Your task to perform on an android device: Search for bose soundlink on ebay, select the first entry, and add it to the cart. Image 0: 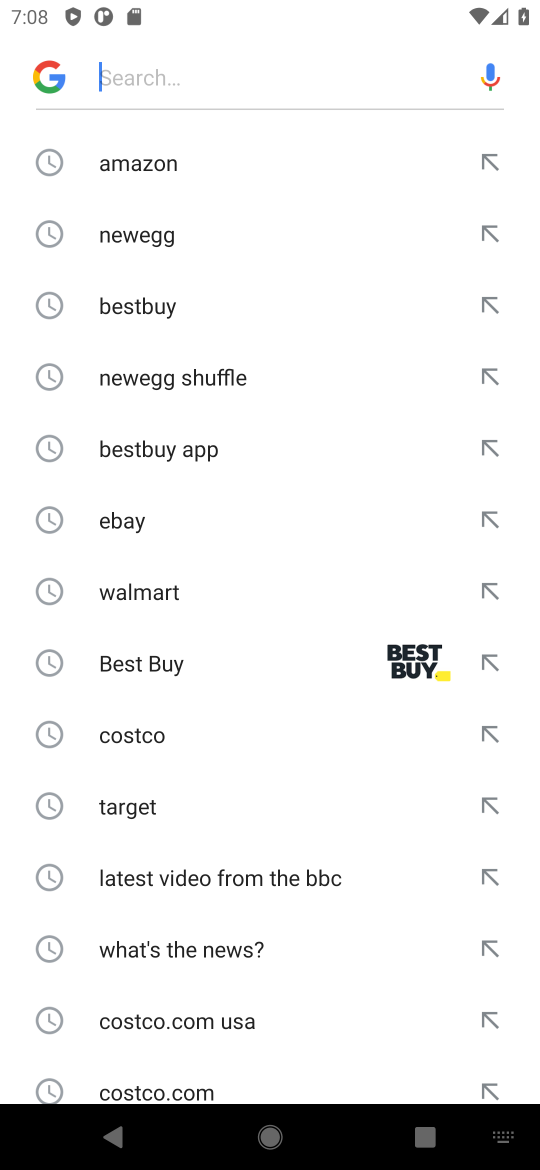
Step 0: type "ebay"
Your task to perform on an android device: Search for bose soundlink on ebay, select the first entry, and add it to the cart. Image 1: 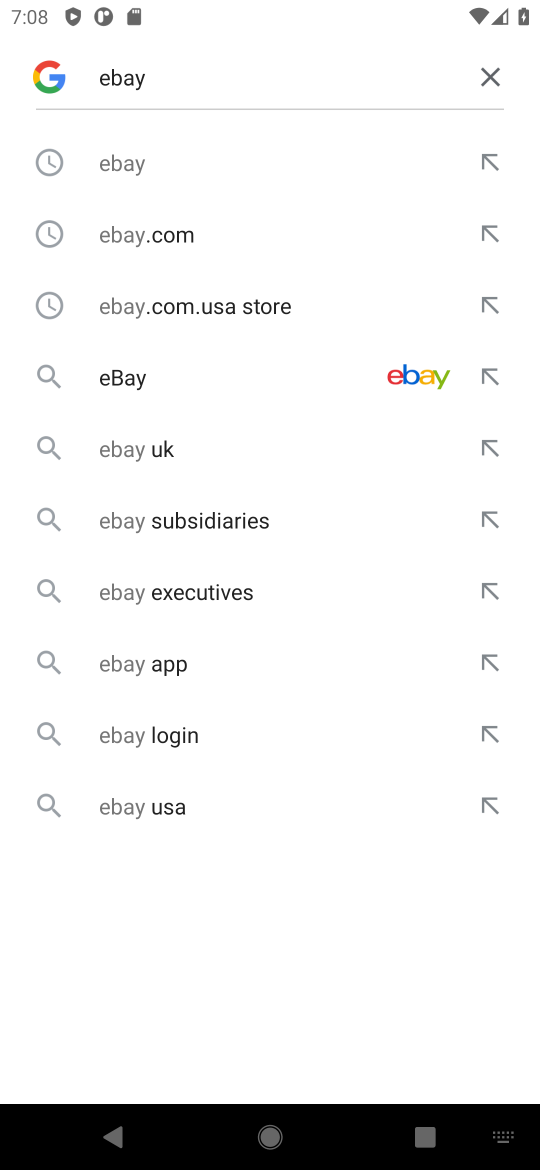
Step 1: click (319, 372)
Your task to perform on an android device: Search for bose soundlink on ebay, select the first entry, and add it to the cart. Image 2: 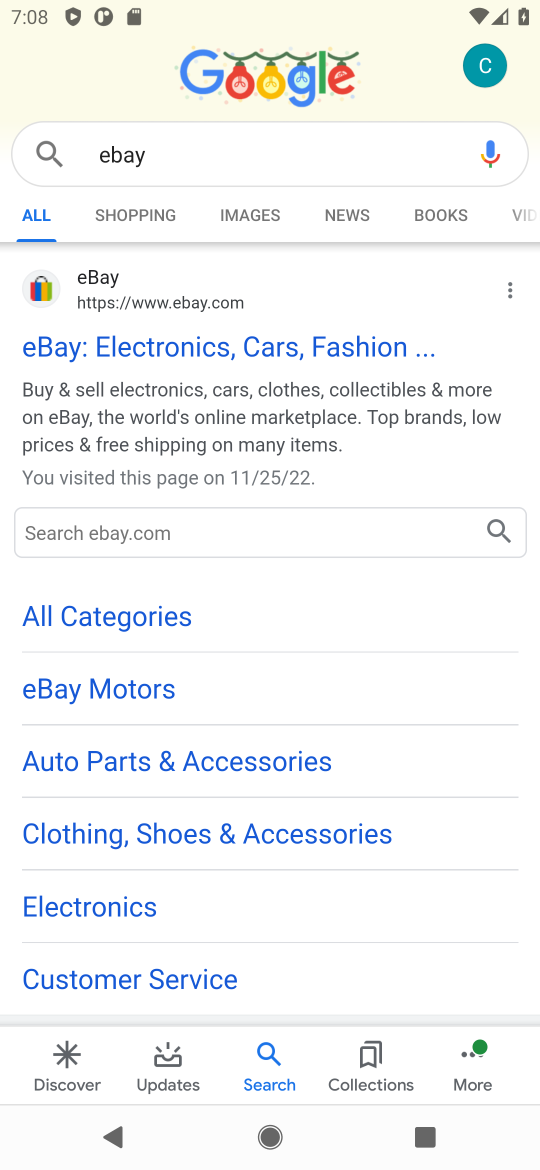
Step 2: click (298, 367)
Your task to perform on an android device: Search for bose soundlink on ebay, select the first entry, and add it to the cart. Image 3: 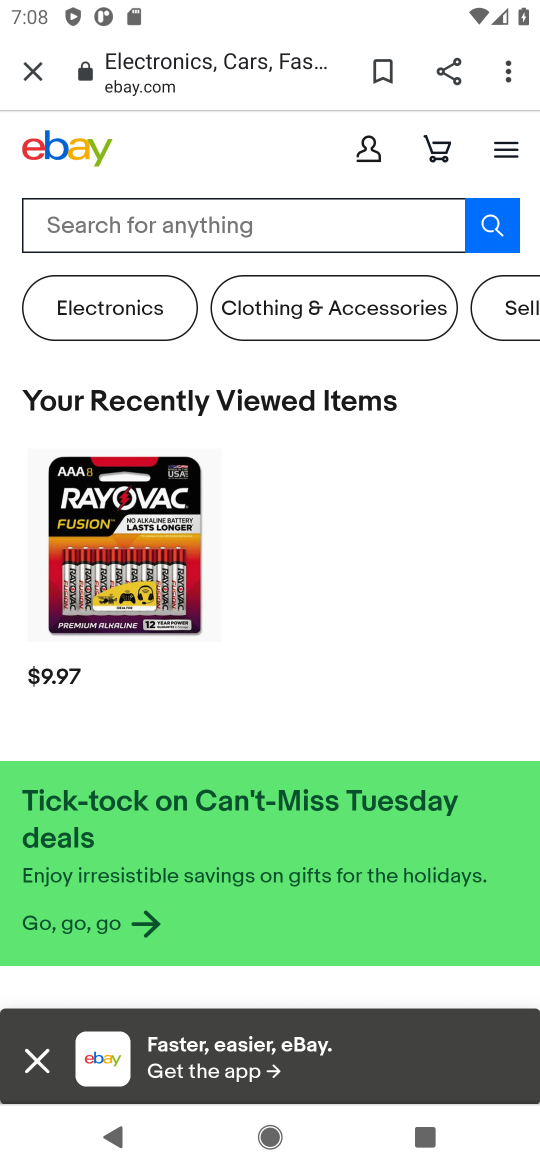
Step 3: task complete